Your task to perform on an android device: Go to eBay Image 0: 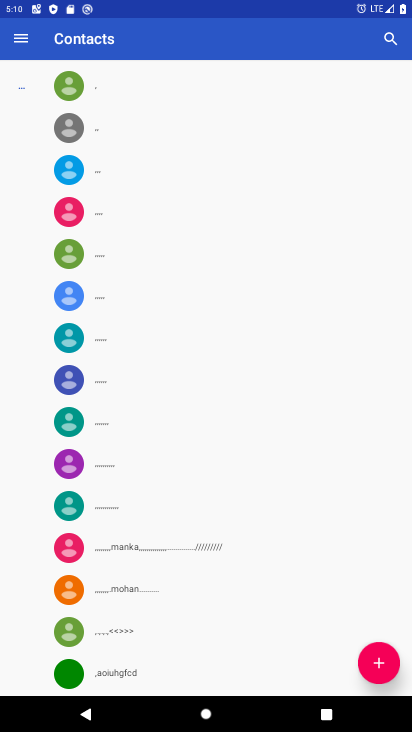
Step 0: press home button
Your task to perform on an android device: Go to eBay Image 1: 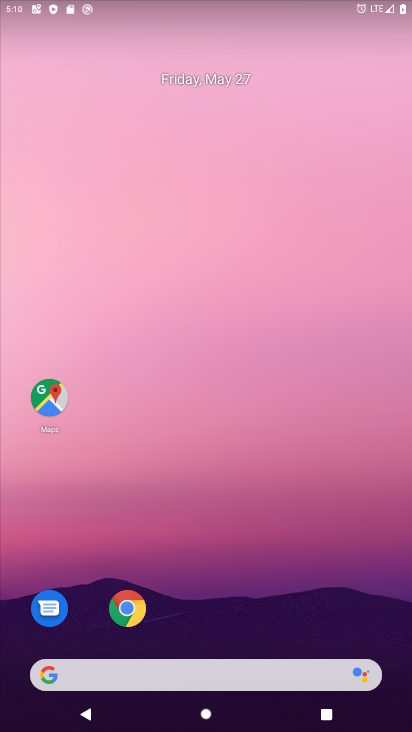
Step 1: click (125, 609)
Your task to perform on an android device: Go to eBay Image 2: 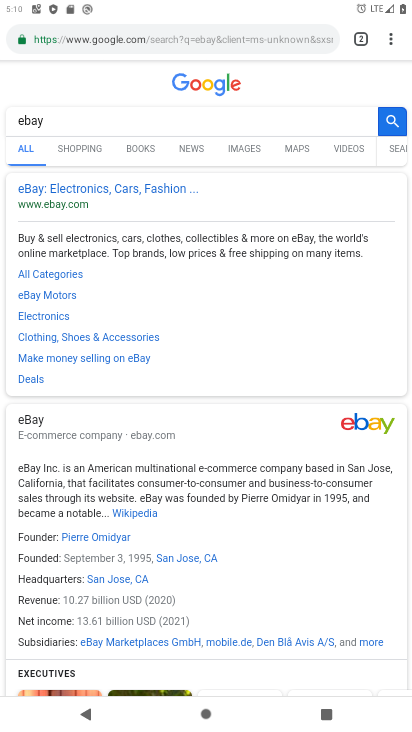
Step 2: click (92, 191)
Your task to perform on an android device: Go to eBay Image 3: 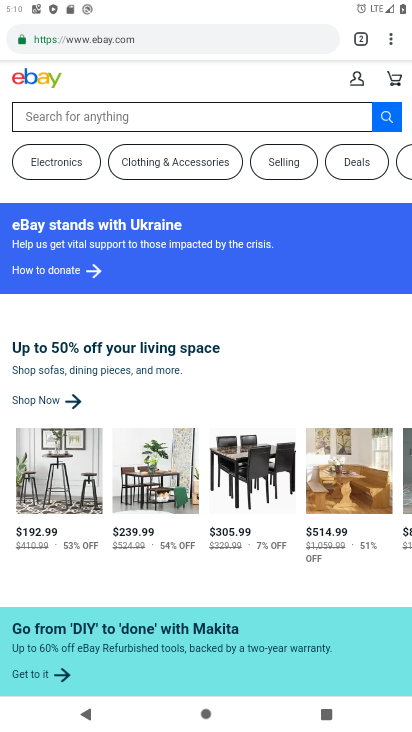
Step 3: task complete